Your task to perform on an android device: Show me the alarms in the clock app Image 0: 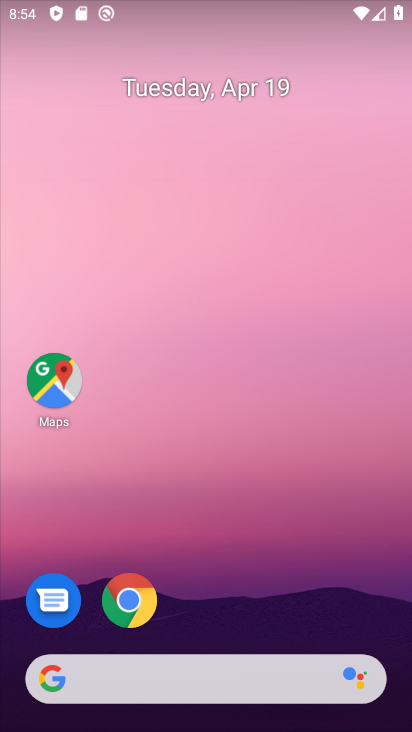
Step 0: drag from (233, 245) to (267, 14)
Your task to perform on an android device: Show me the alarms in the clock app Image 1: 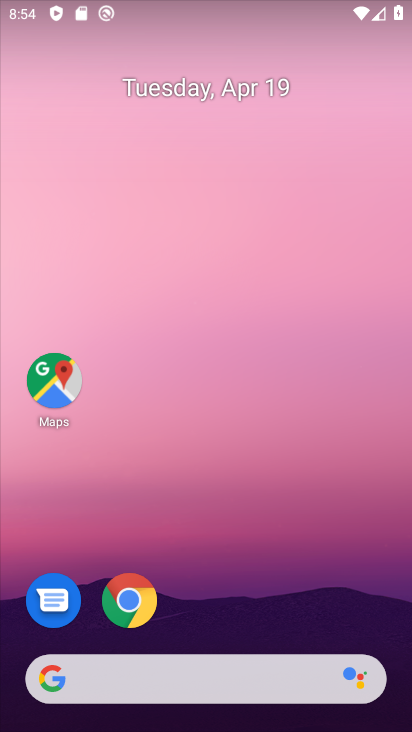
Step 1: drag from (202, 535) to (252, 65)
Your task to perform on an android device: Show me the alarms in the clock app Image 2: 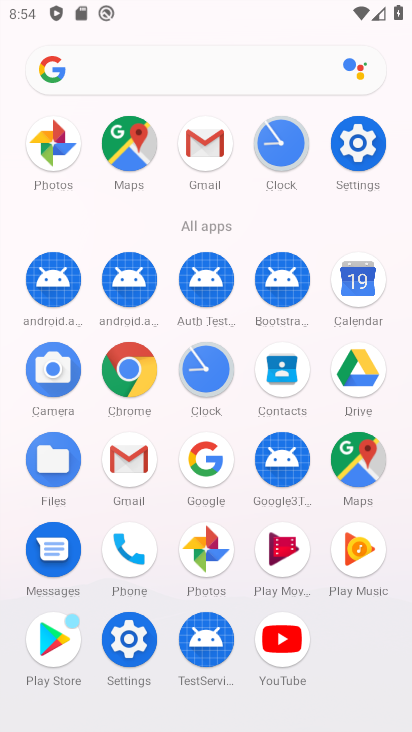
Step 2: click (282, 146)
Your task to perform on an android device: Show me the alarms in the clock app Image 3: 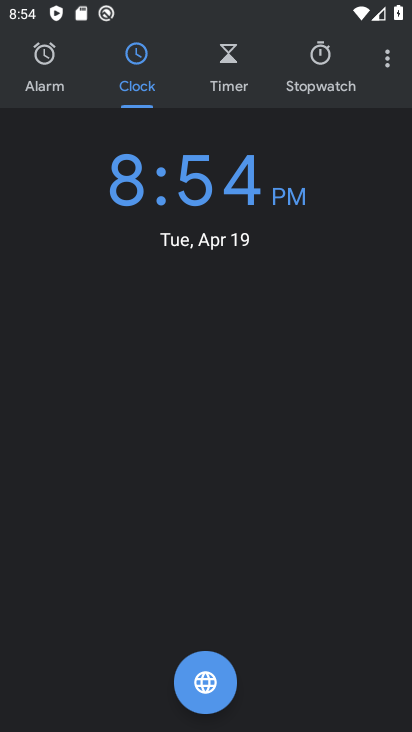
Step 3: click (50, 86)
Your task to perform on an android device: Show me the alarms in the clock app Image 4: 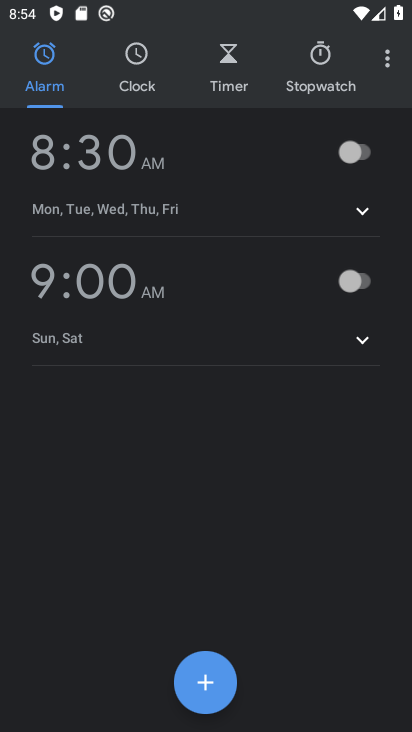
Step 4: task complete